Your task to perform on an android device: Show me recent news Image 0: 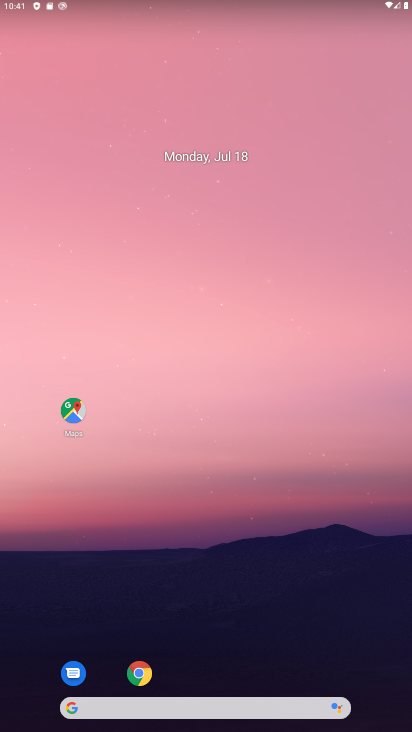
Step 0: press home button
Your task to perform on an android device: Show me recent news Image 1: 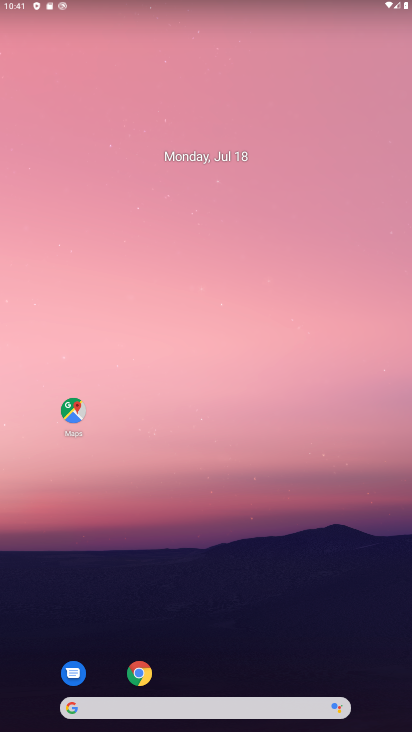
Step 1: task complete